Your task to perform on an android device: What's the weather today? Image 0: 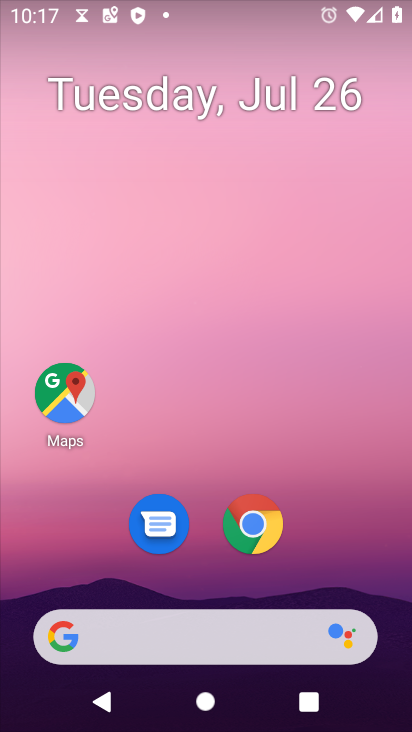
Step 0: press home button
Your task to perform on an android device: What's the weather today? Image 1: 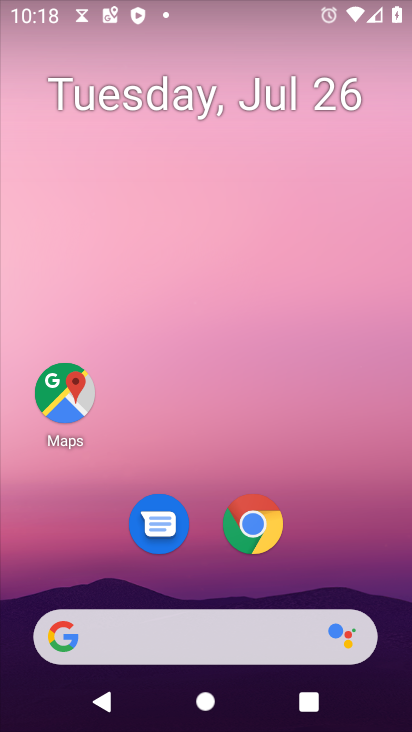
Step 1: click (152, 644)
Your task to perform on an android device: What's the weather today? Image 2: 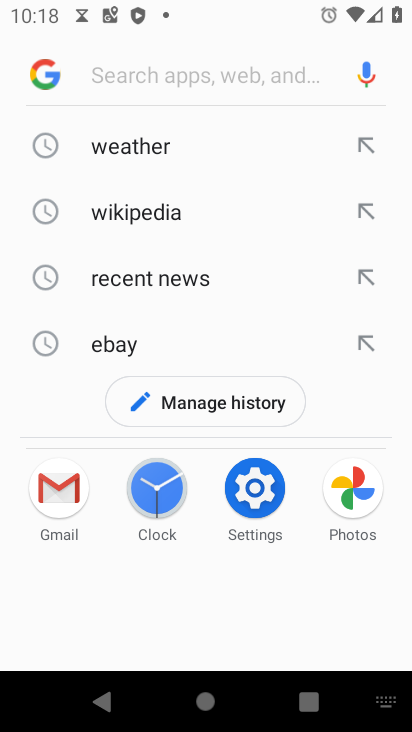
Step 2: click (117, 144)
Your task to perform on an android device: What's the weather today? Image 3: 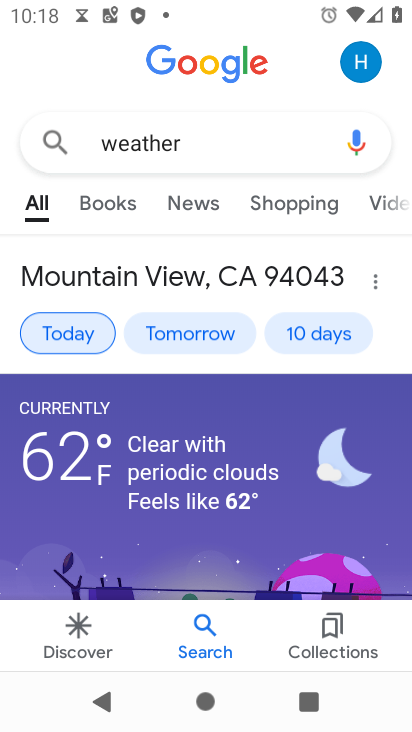
Step 3: task complete